Your task to perform on an android device: Open the calendar and show me this week's events Image 0: 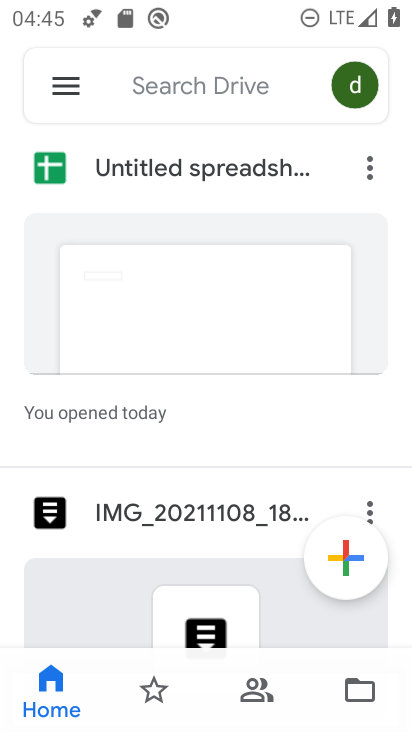
Step 0: press home button
Your task to perform on an android device: Open the calendar and show me this week's events Image 1: 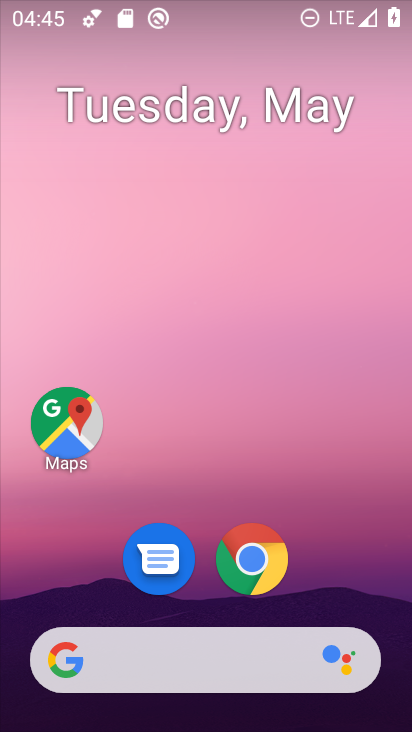
Step 1: drag from (208, 729) to (219, 230)
Your task to perform on an android device: Open the calendar and show me this week's events Image 2: 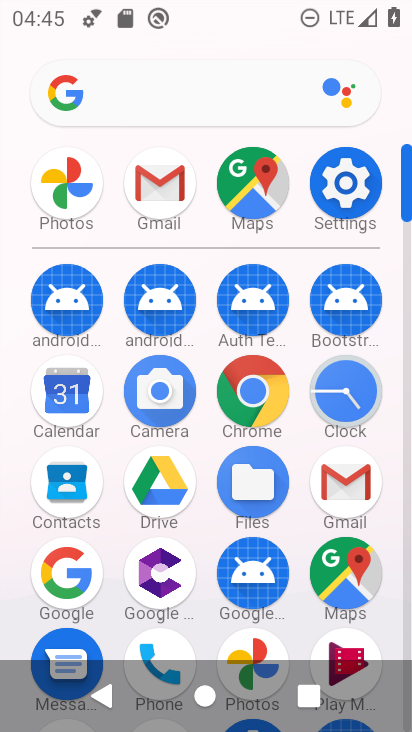
Step 2: click (59, 406)
Your task to perform on an android device: Open the calendar and show me this week's events Image 3: 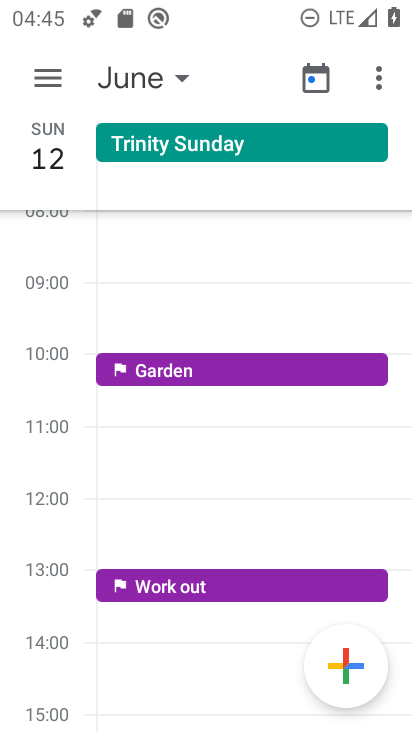
Step 3: click (186, 77)
Your task to perform on an android device: Open the calendar and show me this week's events Image 4: 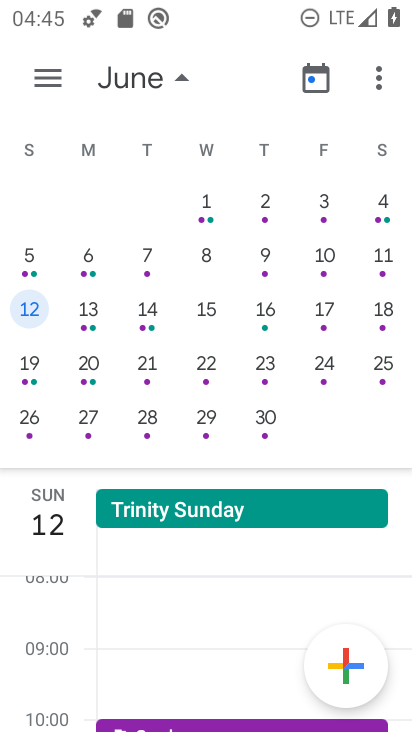
Step 4: click (45, 78)
Your task to perform on an android device: Open the calendar and show me this week's events Image 5: 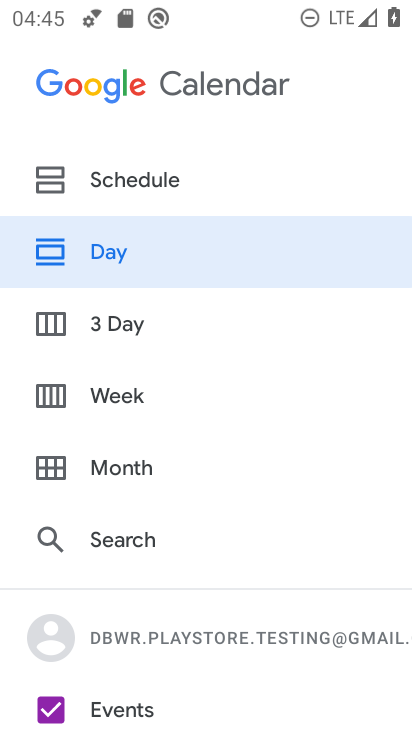
Step 5: drag from (139, 685) to (141, 450)
Your task to perform on an android device: Open the calendar and show me this week's events Image 6: 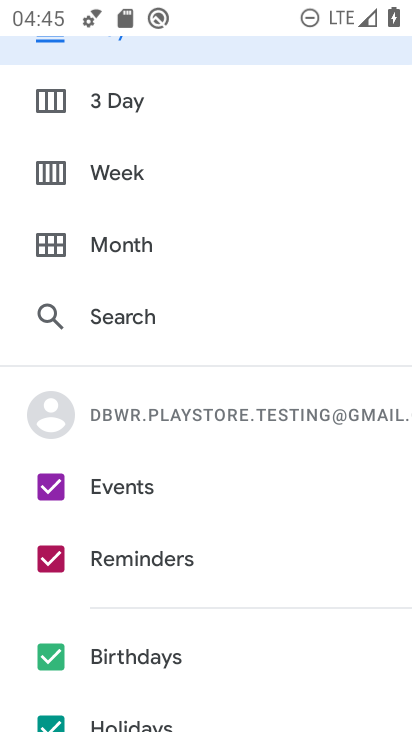
Step 6: drag from (141, 450) to (159, 374)
Your task to perform on an android device: Open the calendar and show me this week's events Image 7: 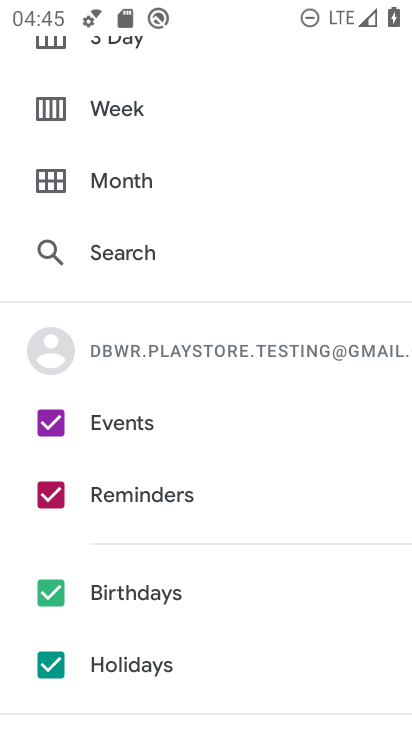
Step 7: click (168, 336)
Your task to perform on an android device: Open the calendar and show me this week's events Image 8: 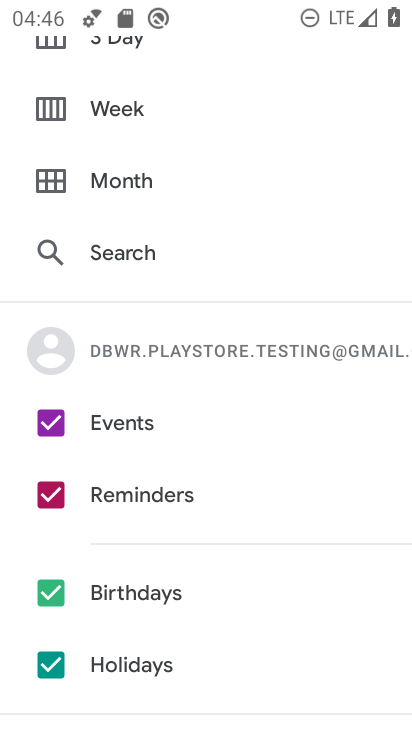
Step 8: click (55, 653)
Your task to perform on an android device: Open the calendar and show me this week's events Image 9: 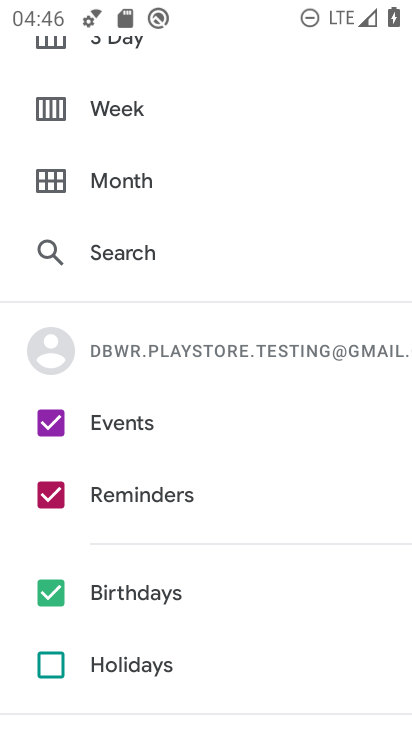
Step 9: click (53, 581)
Your task to perform on an android device: Open the calendar and show me this week's events Image 10: 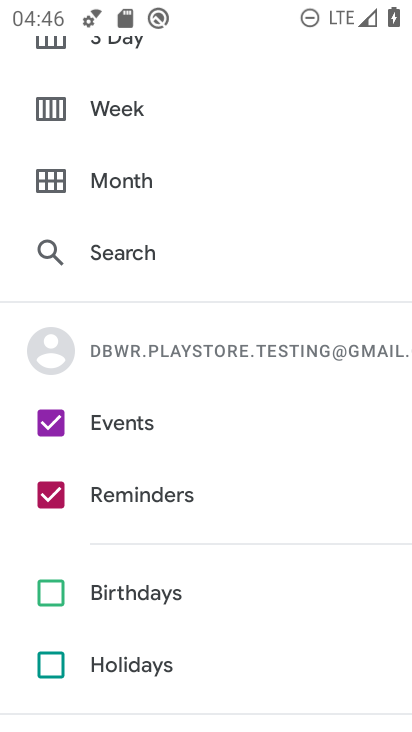
Step 10: click (47, 489)
Your task to perform on an android device: Open the calendar and show me this week's events Image 11: 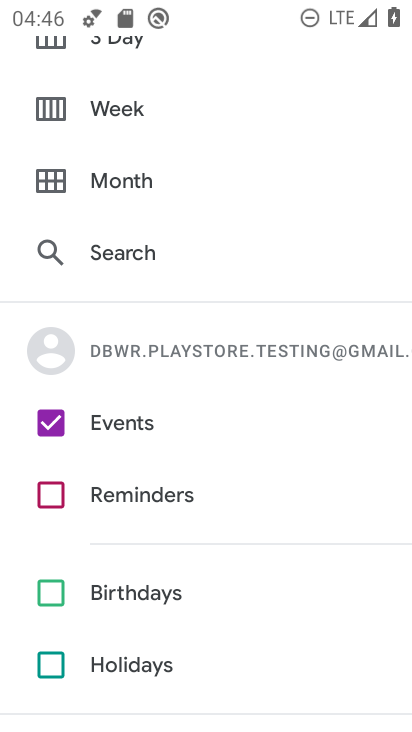
Step 11: click (124, 102)
Your task to perform on an android device: Open the calendar and show me this week's events Image 12: 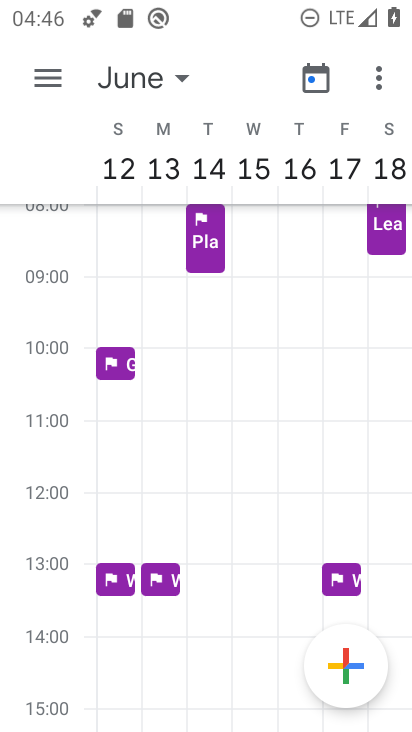
Step 12: task complete